Your task to perform on an android device: toggle data saver in the chrome app Image 0: 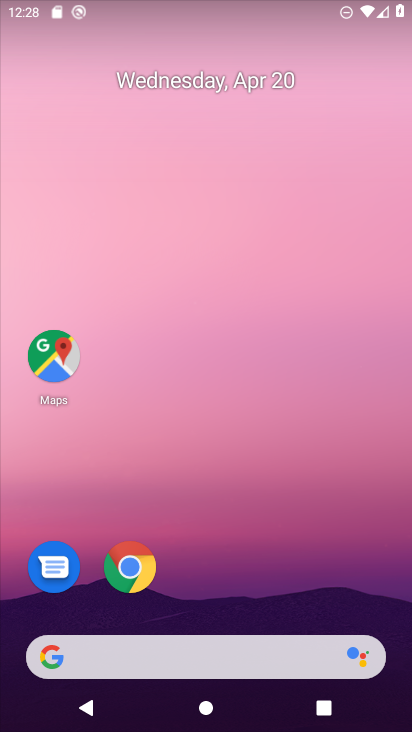
Step 0: drag from (227, 571) to (257, 75)
Your task to perform on an android device: toggle data saver in the chrome app Image 1: 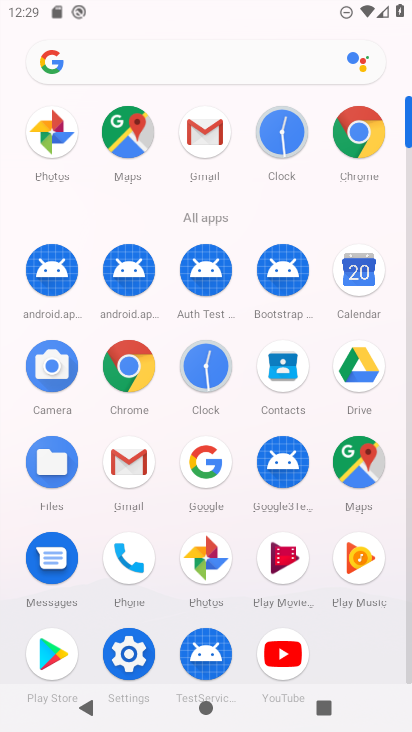
Step 1: click (362, 123)
Your task to perform on an android device: toggle data saver in the chrome app Image 2: 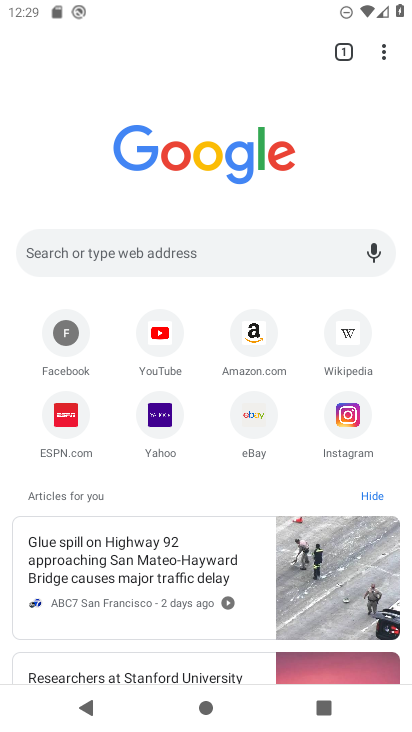
Step 2: drag from (381, 45) to (200, 434)
Your task to perform on an android device: toggle data saver in the chrome app Image 3: 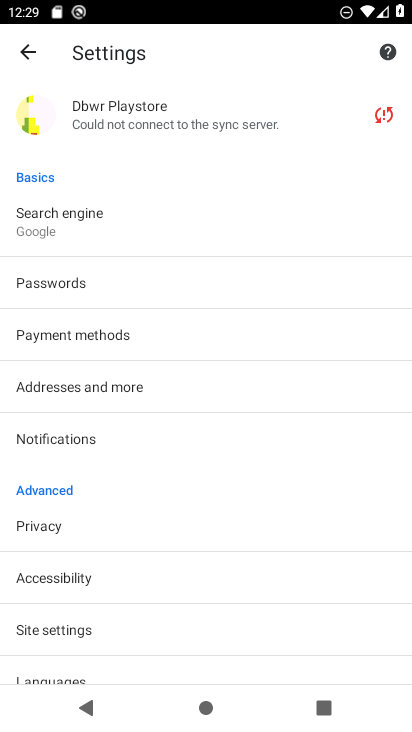
Step 3: drag from (192, 566) to (225, 259)
Your task to perform on an android device: toggle data saver in the chrome app Image 4: 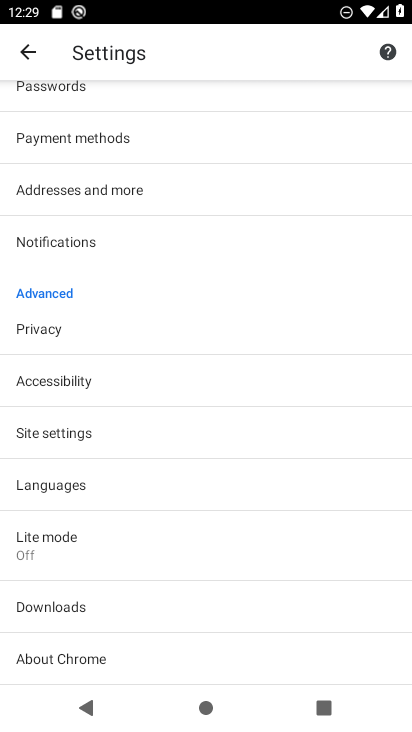
Step 4: click (67, 534)
Your task to perform on an android device: toggle data saver in the chrome app Image 5: 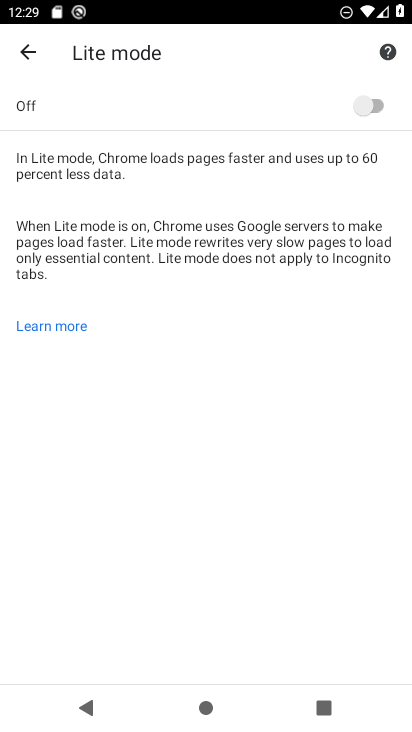
Step 5: click (376, 99)
Your task to perform on an android device: toggle data saver in the chrome app Image 6: 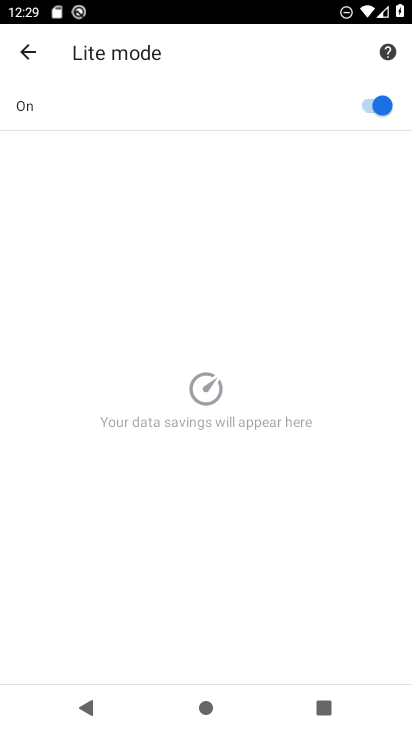
Step 6: task complete